Your task to perform on an android device: turn smart compose on in the gmail app Image 0: 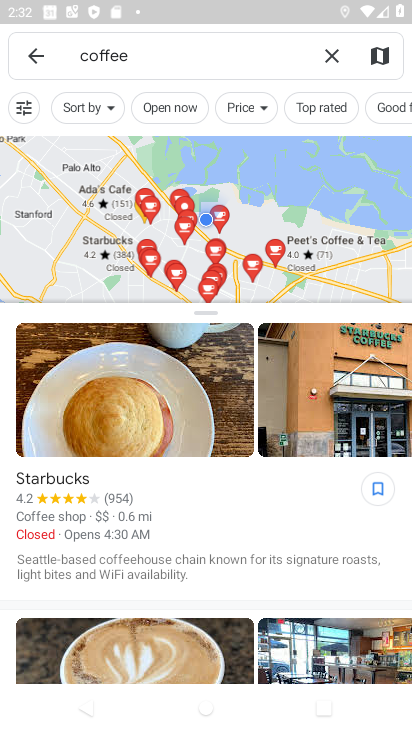
Step 0: press home button
Your task to perform on an android device: turn smart compose on in the gmail app Image 1: 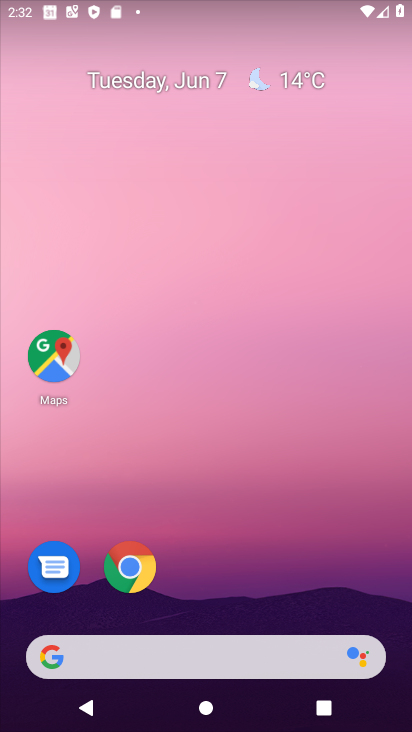
Step 1: drag from (212, 589) to (193, 181)
Your task to perform on an android device: turn smart compose on in the gmail app Image 2: 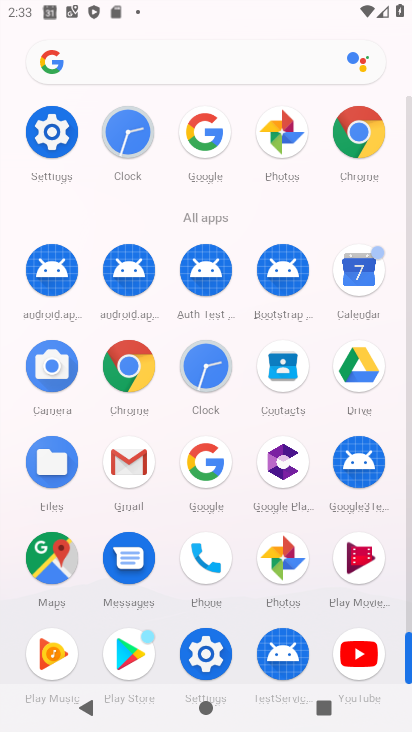
Step 2: click (117, 462)
Your task to perform on an android device: turn smart compose on in the gmail app Image 3: 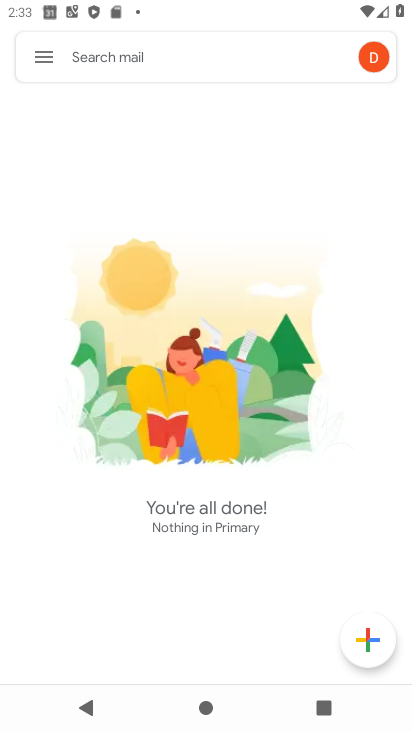
Step 3: click (31, 65)
Your task to perform on an android device: turn smart compose on in the gmail app Image 4: 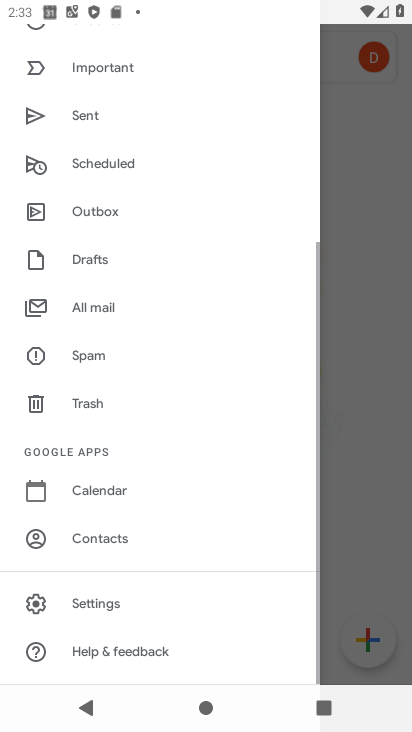
Step 4: drag from (142, 534) to (145, 215)
Your task to perform on an android device: turn smart compose on in the gmail app Image 5: 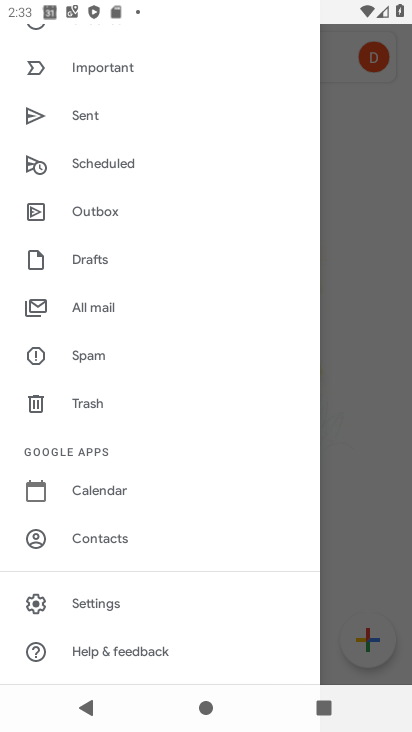
Step 5: click (149, 603)
Your task to perform on an android device: turn smart compose on in the gmail app Image 6: 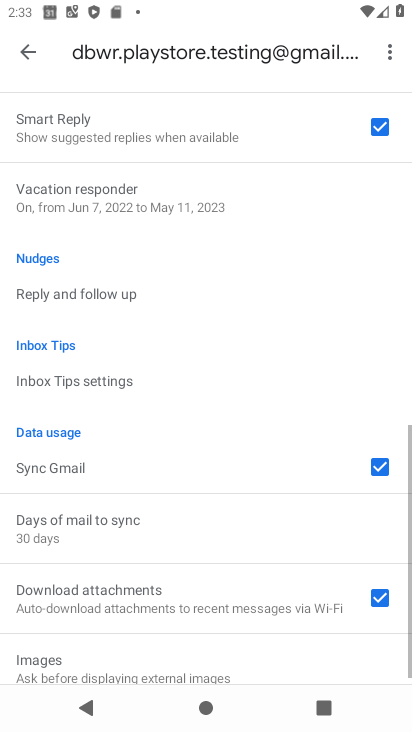
Step 6: task complete